Your task to perform on an android device: Go to location settings Image 0: 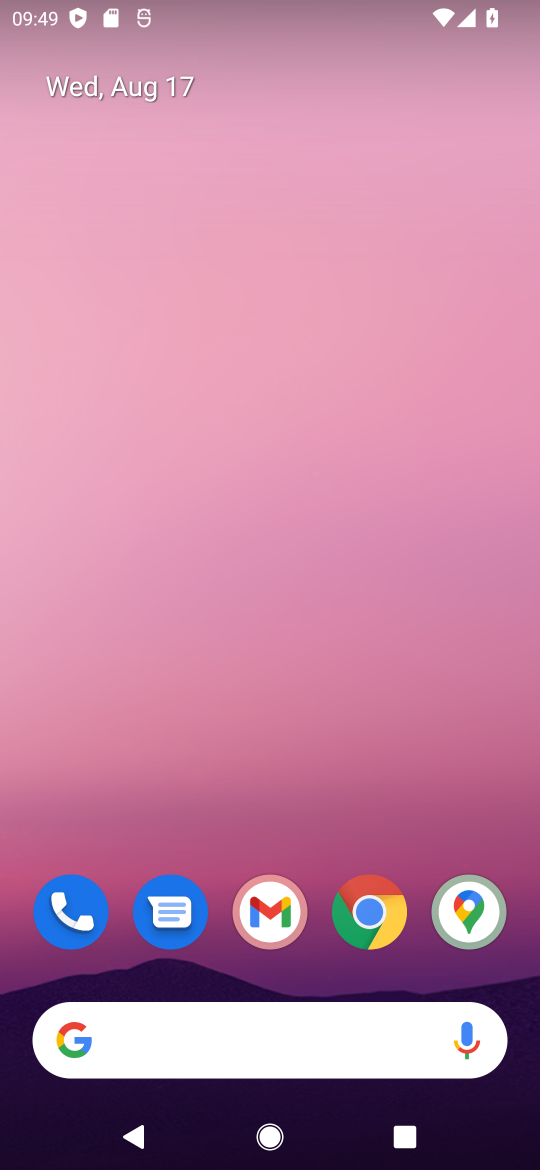
Step 0: drag from (236, 1038) to (308, 311)
Your task to perform on an android device: Go to location settings Image 1: 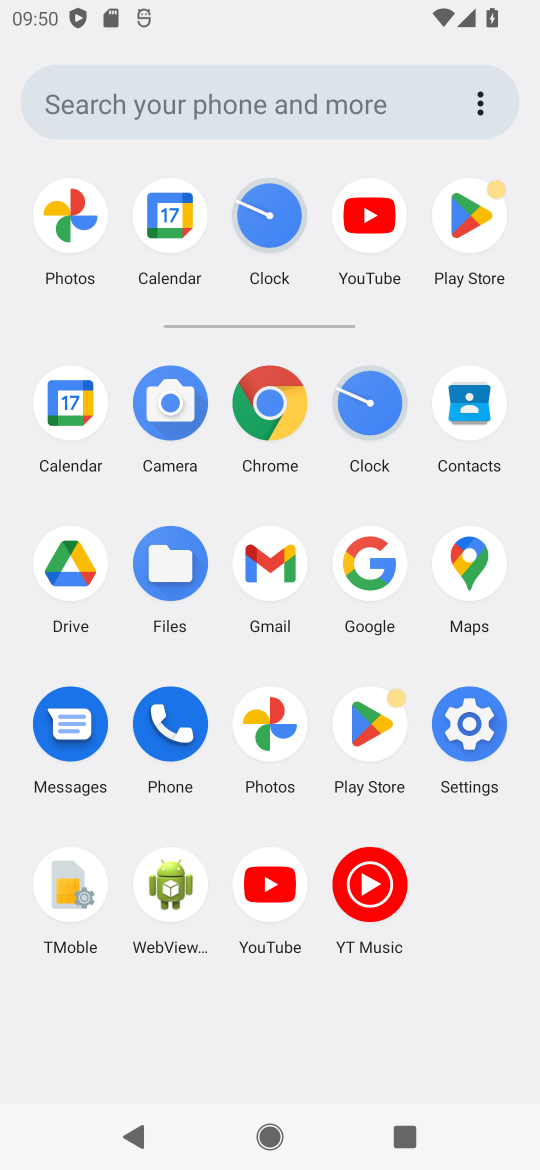
Step 1: click (467, 738)
Your task to perform on an android device: Go to location settings Image 2: 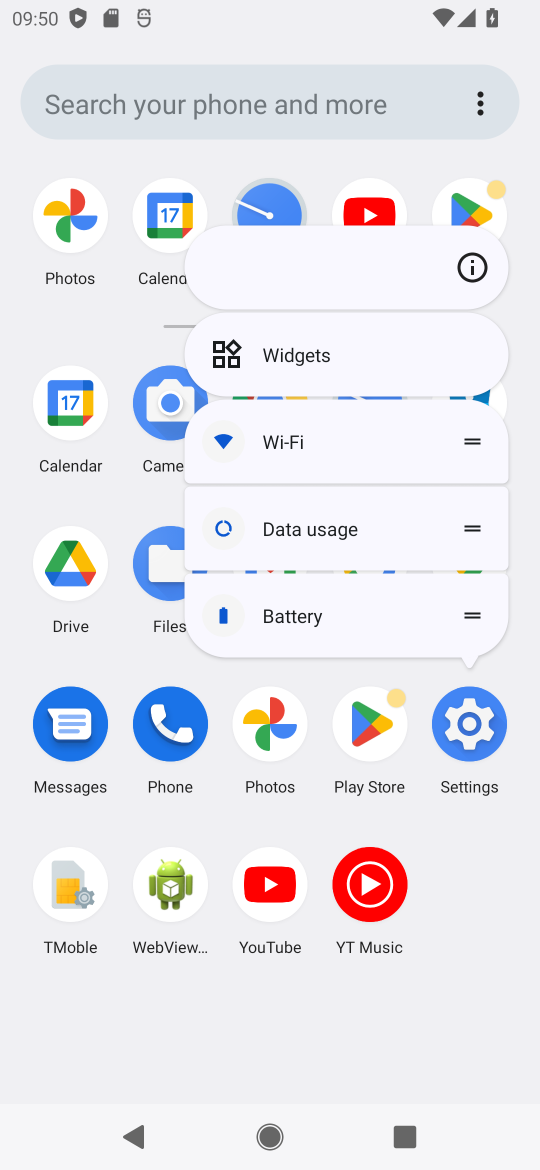
Step 2: click (476, 756)
Your task to perform on an android device: Go to location settings Image 3: 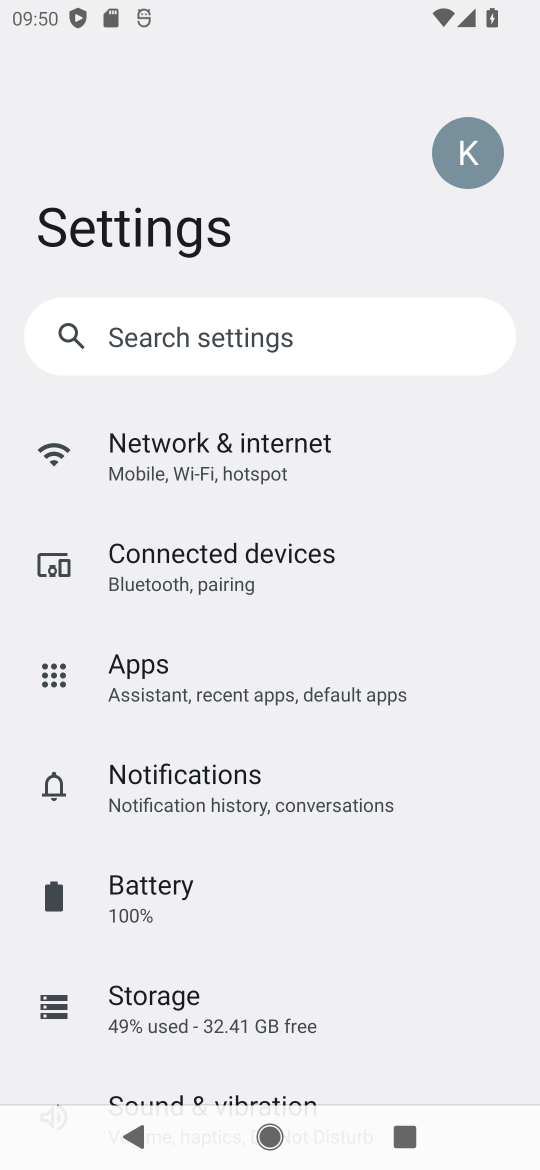
Step 3: drag from (195, 1031) to (184, 414)
Your task to perform on an android device: Go to location settings Image 4: 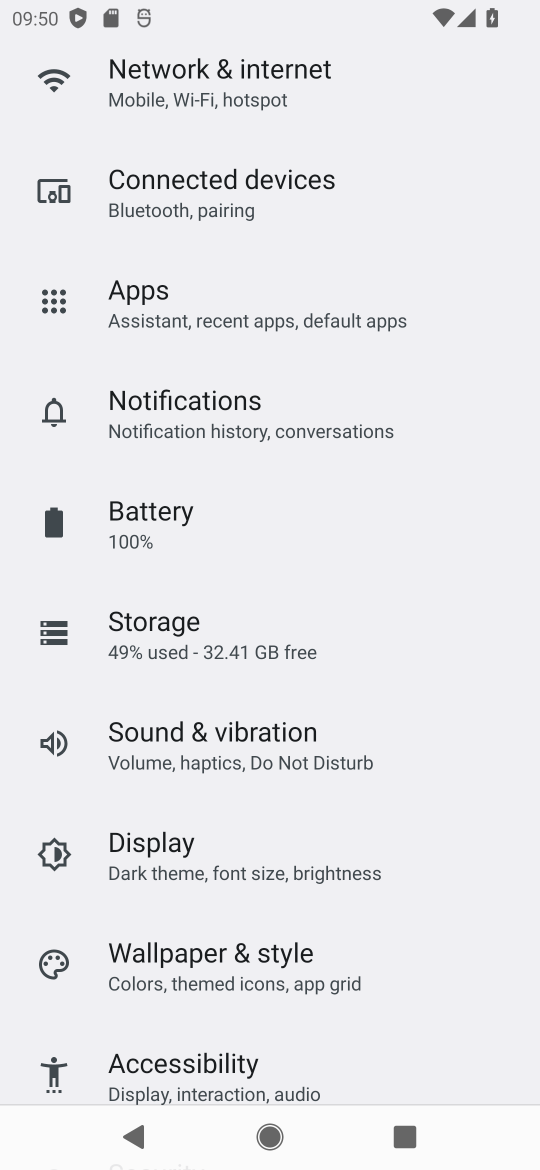
Step 4: drag from (186, 1060) to (196, 578)
Your task to perform on an android device: Go to location settings Image 5: 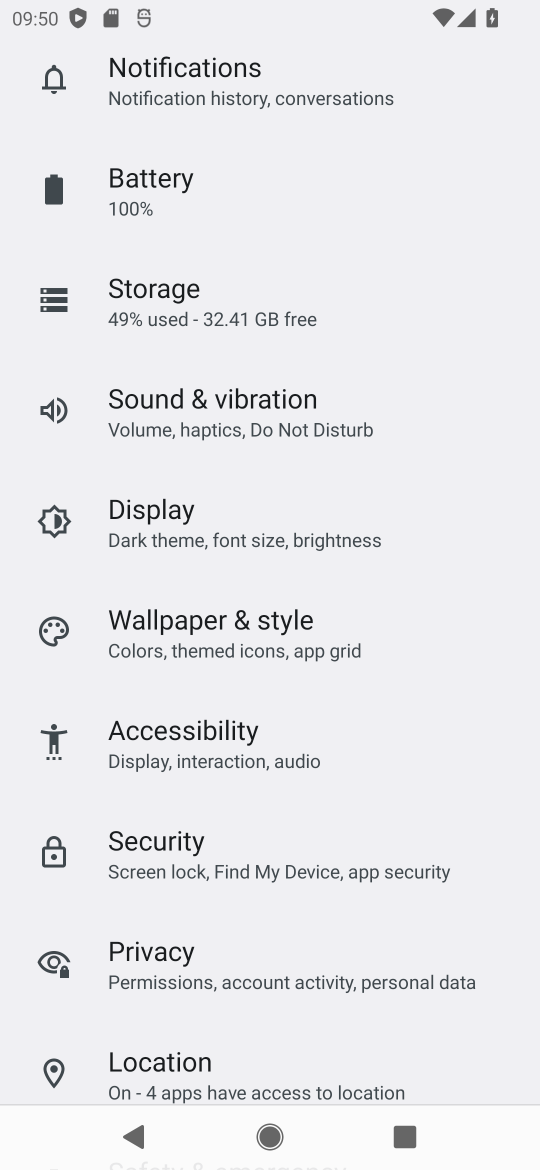
Step 5: click (201, 1060)
Your task to perform on an android device: Go to location settings Image 6: 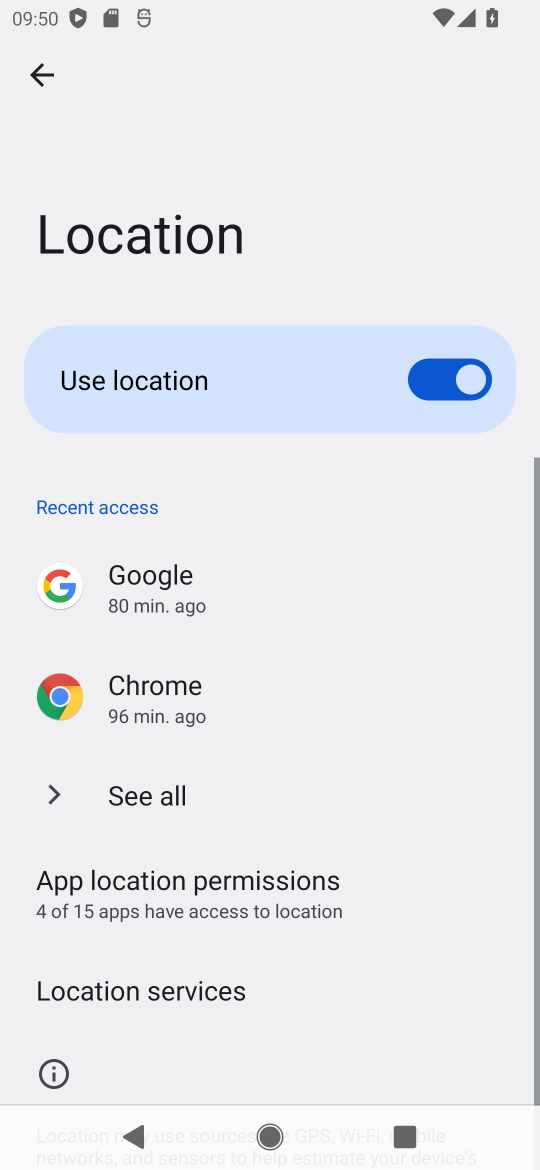
Step 6: task complete